Your task to perform on an android device: check storage Image 0: 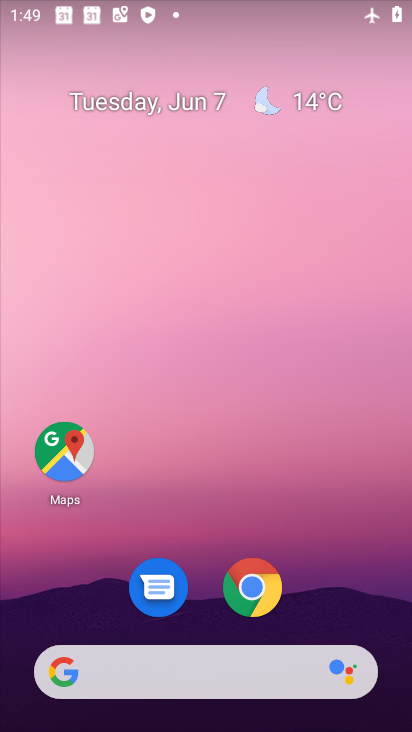
Step 0: drag from (244, 665) to (331, 200)
Your task to perform on an android device: check storage Image 1: 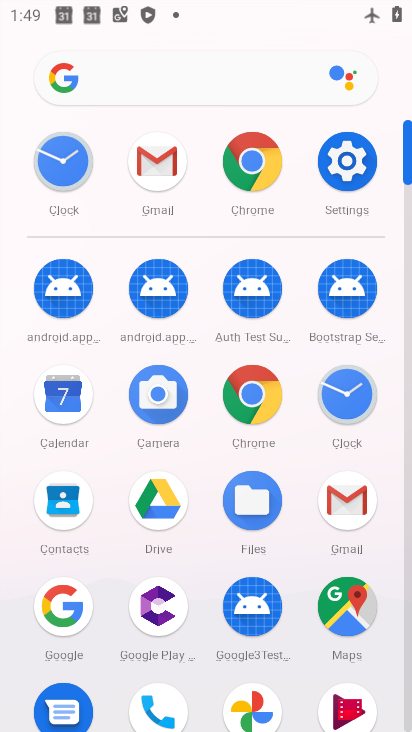
Step 1: click (345, 171)
Your task to perform on an android device: check storage Image 2: 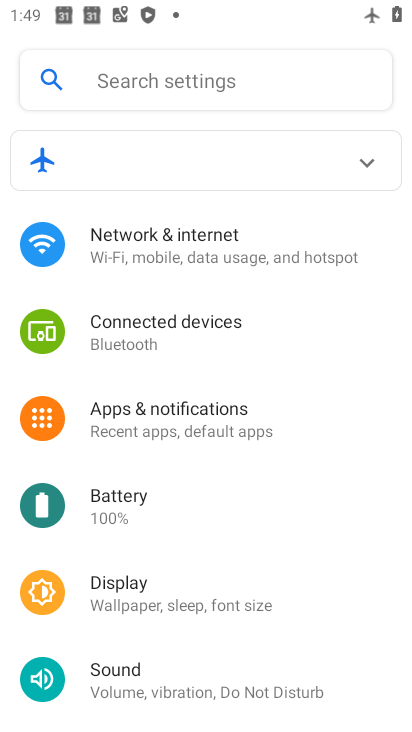
Step 2: drag from (219, 510) to (295, 107)
Your task to perform on an android device: check storage Image 3: 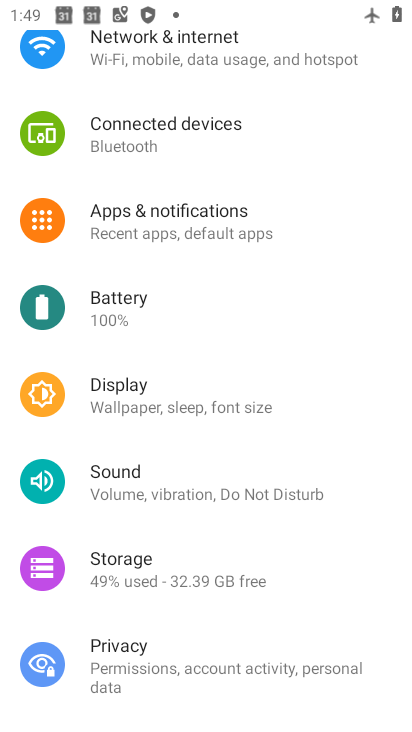
Step 3: drag from (180, 520) to (208, 396)
Your task to perform on an android device: check storage Image 4: 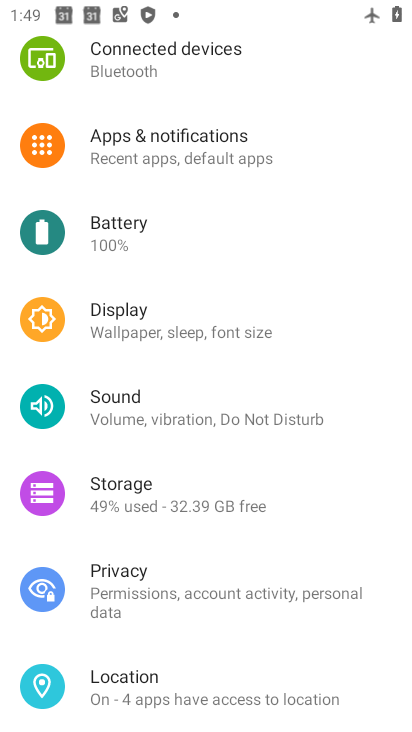
Step 4: click (162, 506)
Your task to perform on an android device: check storage Image 5: 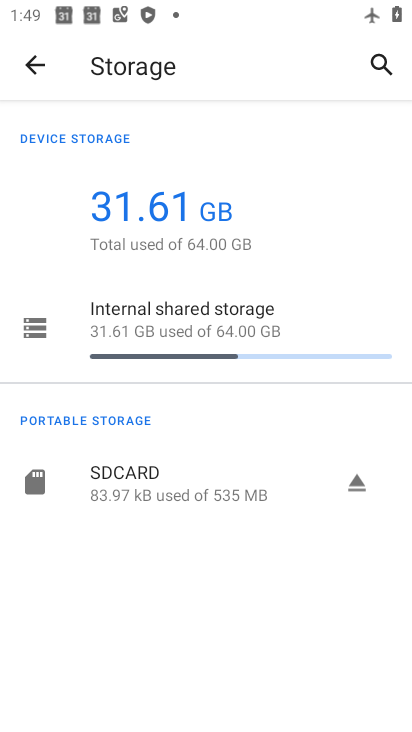
Step 5: click (227, 334)
Your task to perform on an android device: check storage Image 6: 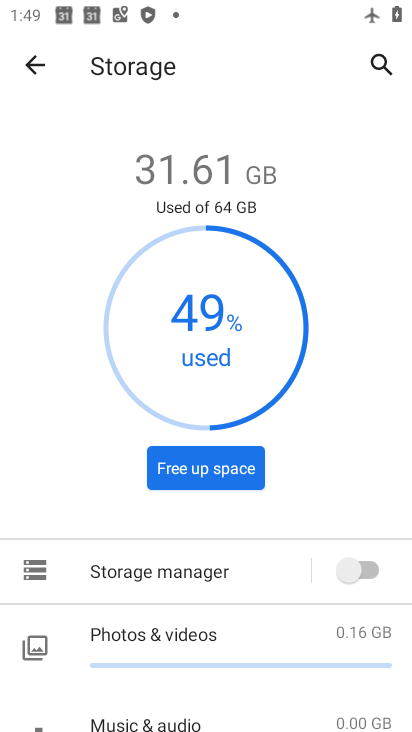
Step 6: task complete